Your task to perform on an android device: Open Reddit.com Image 0: 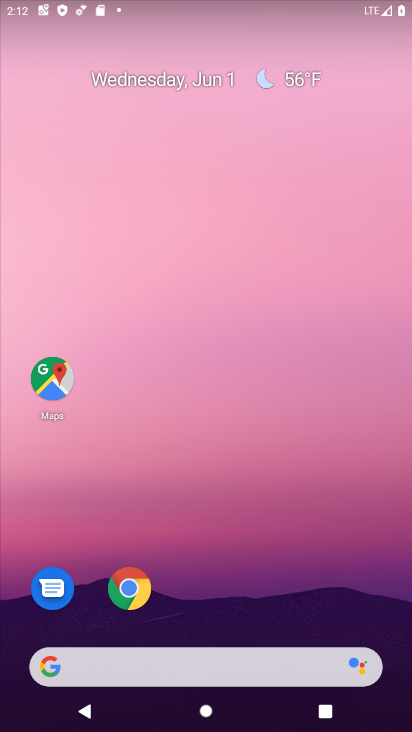
Step 0: click (141, 593)
Your task to perform on an android device: Open Reddit.com Image 1: 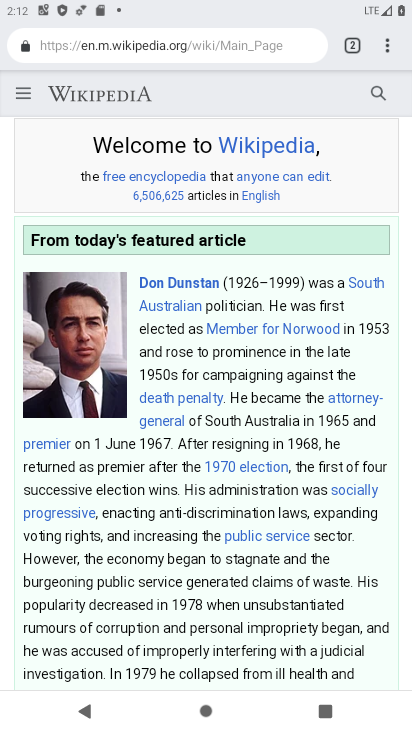
Step 1: click (358, 45)
Your task to perform on an android device: Open Reddit.com Image 2: 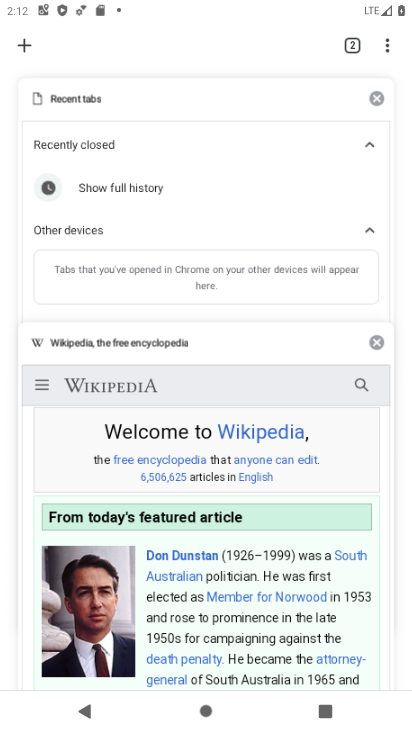
Step 2: click (18, 48)
Your task to perform on an android device: Open Reddit.com Image 3: 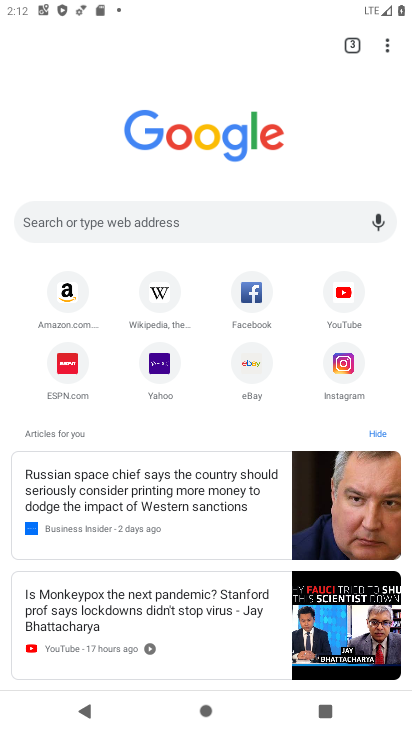
Step 3: click (198, 229)
Your task to perform on an android device: Open Reddit.com Image 4: 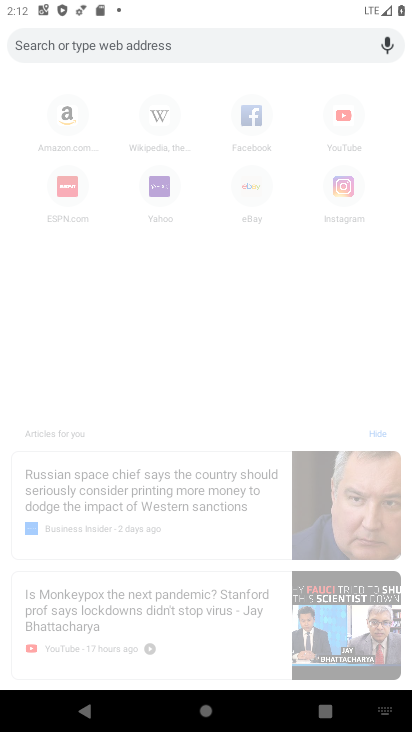
Step 4: type "Reddit.com"
Your task to perform on an android device: Open Reddit.com Image 5: 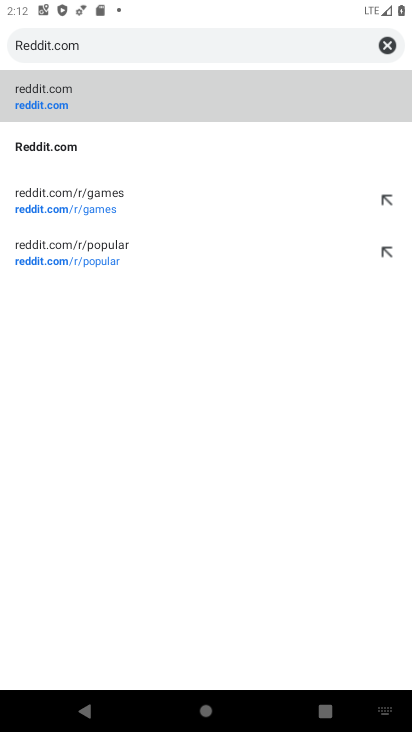
Step 5: click (117, 108)
Your task to perform on an android device: Open Reddit.com Image 6: 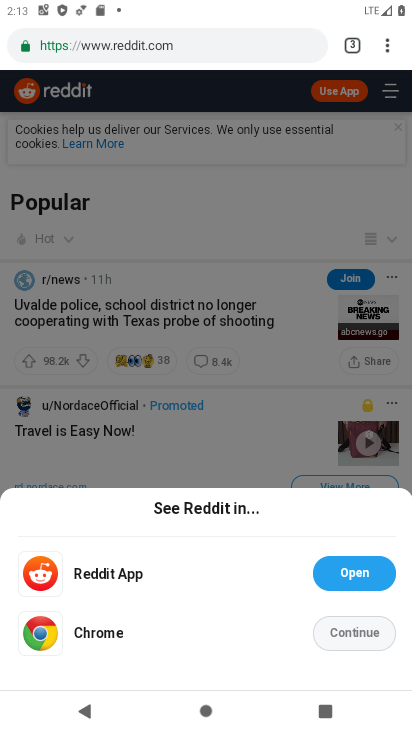
Step 6: task complete